Your task to perform on an android device: Search for razer naga on newegg.com, select the first entry, add it to the cart, then select checkout. Image 0: 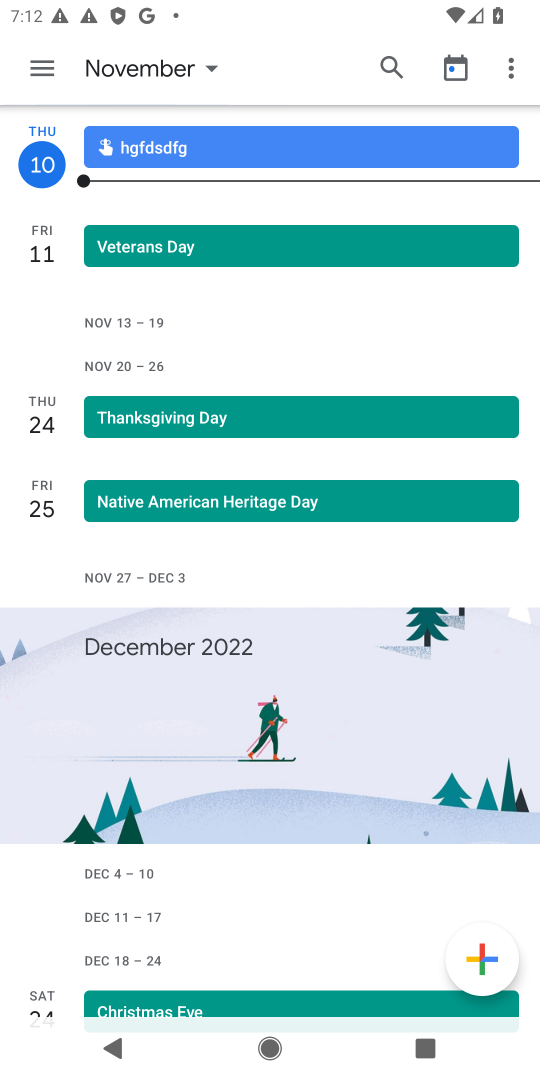
Step 0: press home button
Your task to perform on an android device: Search for razer naga on newegg.com, select the first entry, add it to the cart, then select checkout. Image 1: 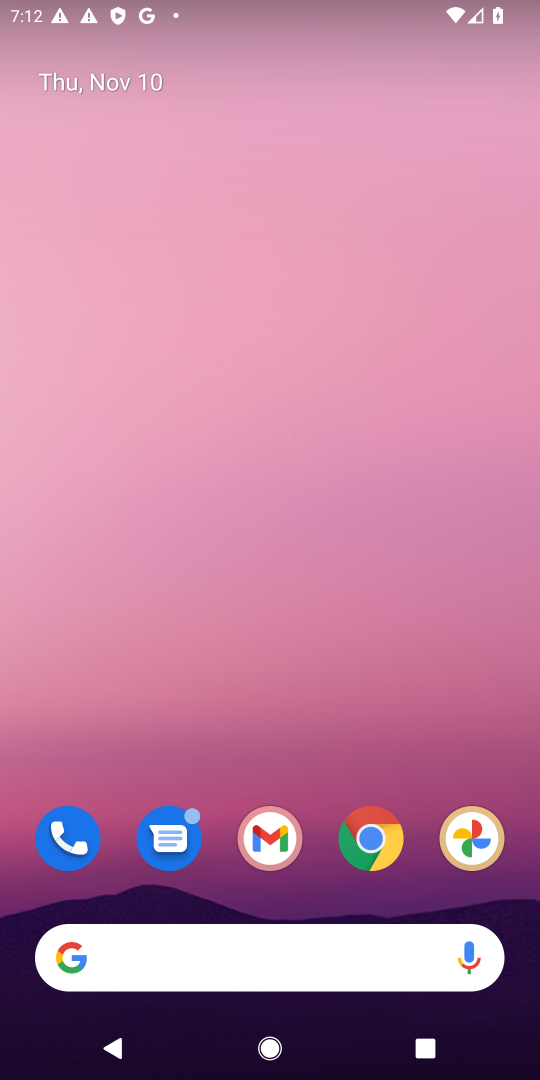
Step 1: drag from (300, 902) to (303, 73)
Your task to perform on an android device: Search for razer naga on newegg.com, select the first entry, add it to the cart, then select checkout. Image 2: 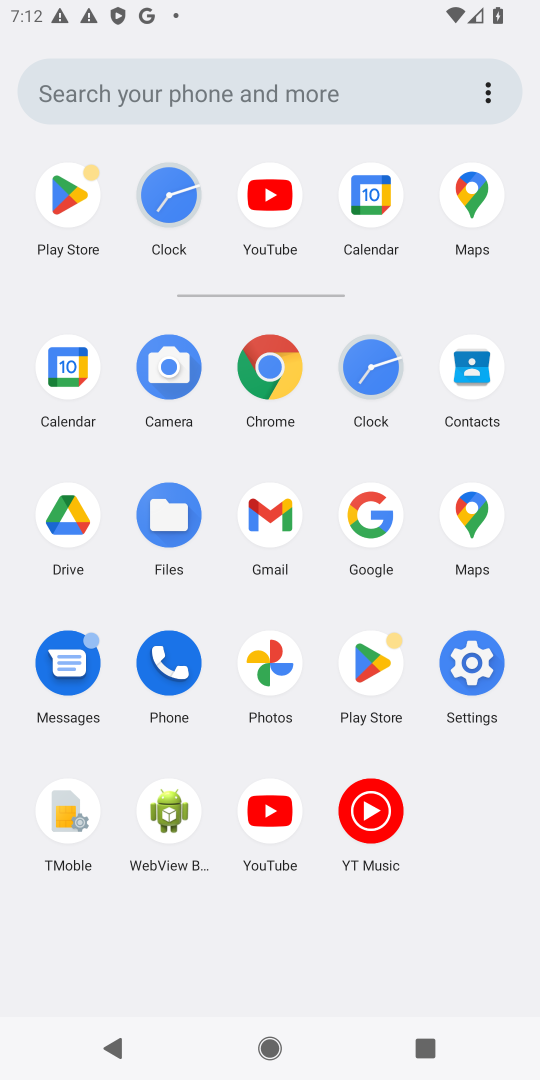
Step 2: click (263, 363)
Your task to perform on an android device: Search for razer naga on newegg.com, select the first entry, add it to the cart, then select checkout. Image 3: 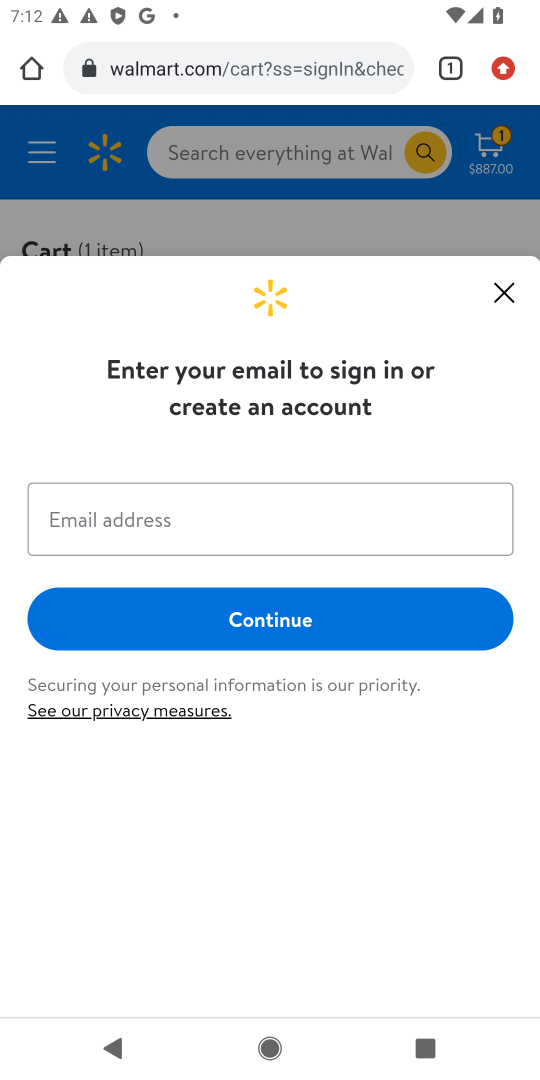
Step 3: click (308, 65)
Your task to perform on an android device: Search for razer naga on newegg.com, select the first entry, add it to the cart, then select checkout. Image 4: 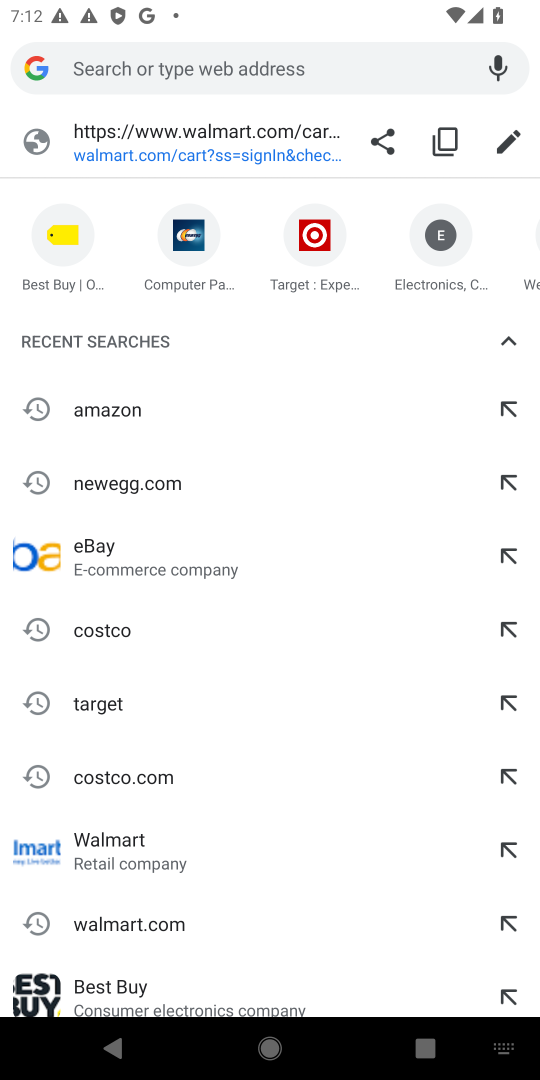
Step 4: type "newegg.com"
Your task to perform on an android device: Search for razer naga on newegg.com, select the first entry, add it to the cart, then select checkout. Image 5: 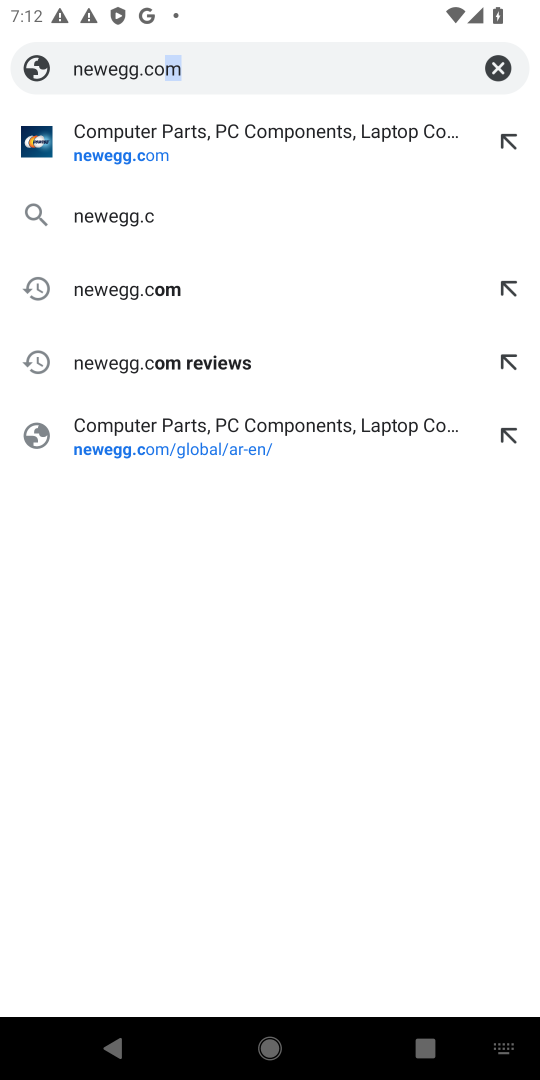
Step 5: press enter
Your task to perform on an android device: Search for razer naga on newegg.com, select the first entry, add it to the cart, then select checkout. Image 6: 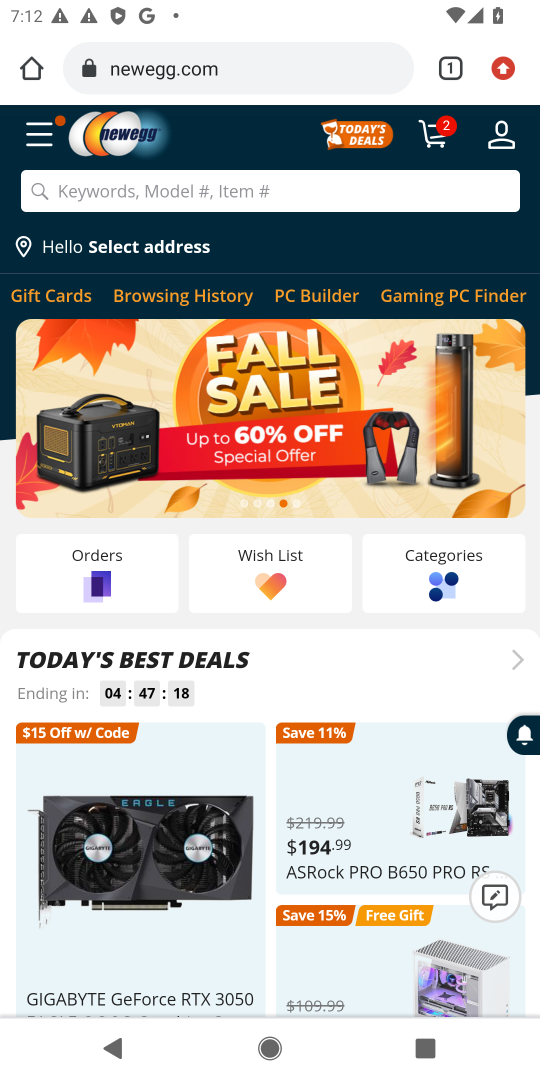
Step 6: click (395, 183)
Your task to perform on an android device: Search for razer naga on newegg.com, select the first entry, add it to the cart, then select checkout. Image 7: 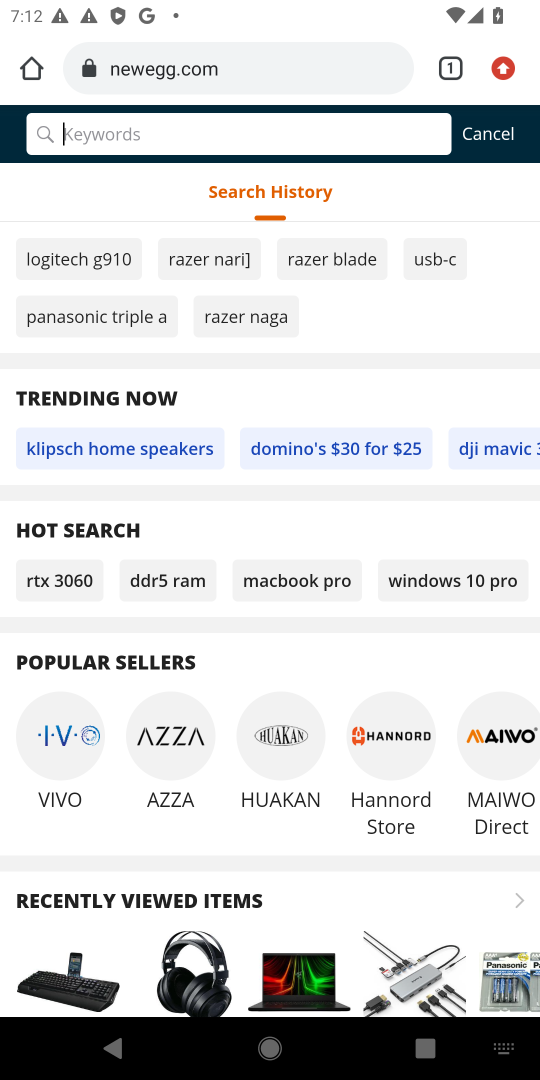
Step 7: type "razer  naga"
Your task to perform on an android device: Search for razer naga on newegg.com, select the first entry, add it to the cart, then select checkout. Image 8: 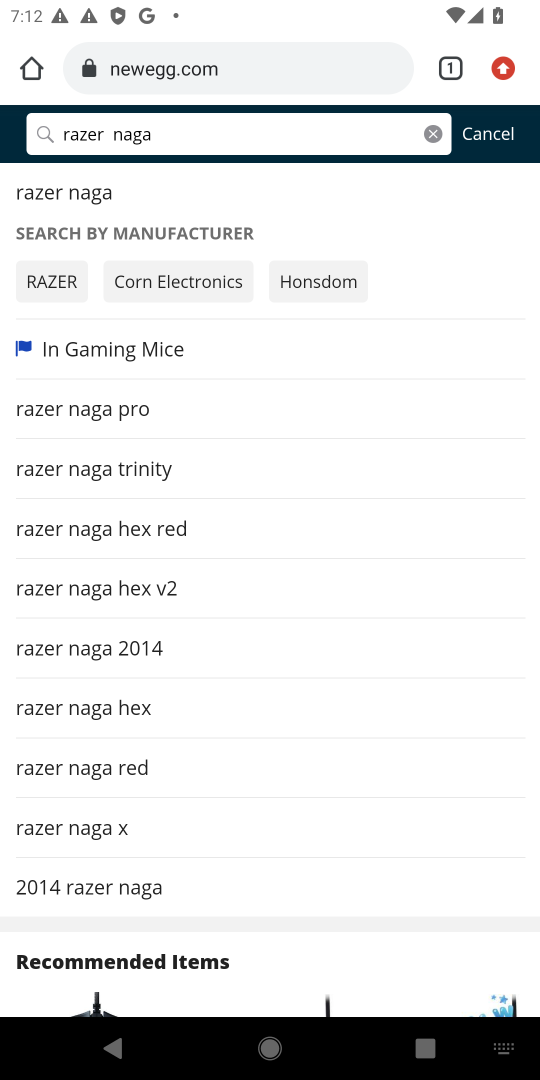
Step 8: press enter
Your task to perform on an android device: Search for razer naga on newegg.com, select the first entry, add it to the cart, then select checkout. Image 9: 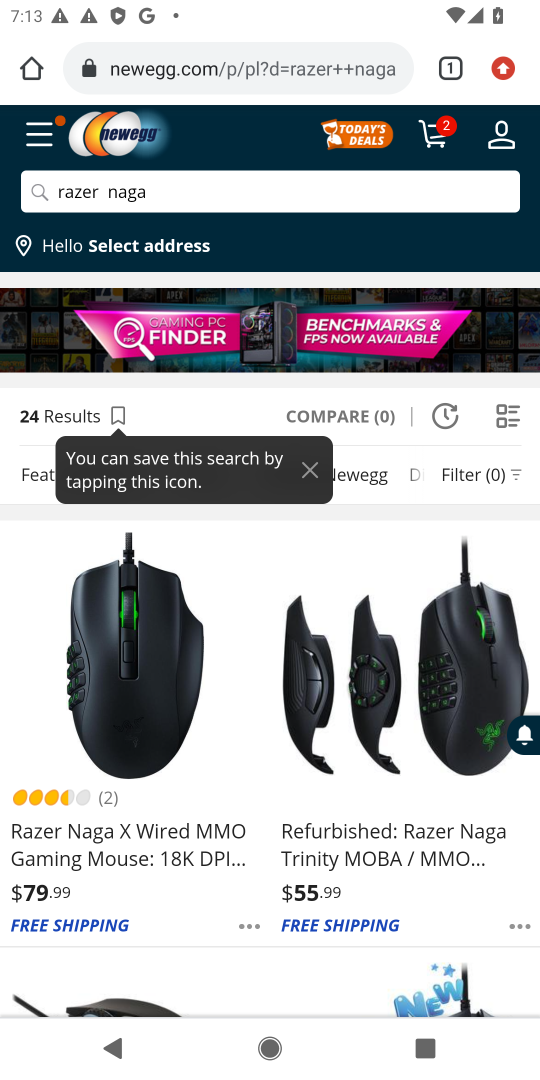
Step 9: click (135, 840)
Your task to perform on an android device: Search for razer naga on newegg.com, select the first entry, add it to the cart, then select checkout. Image 10: 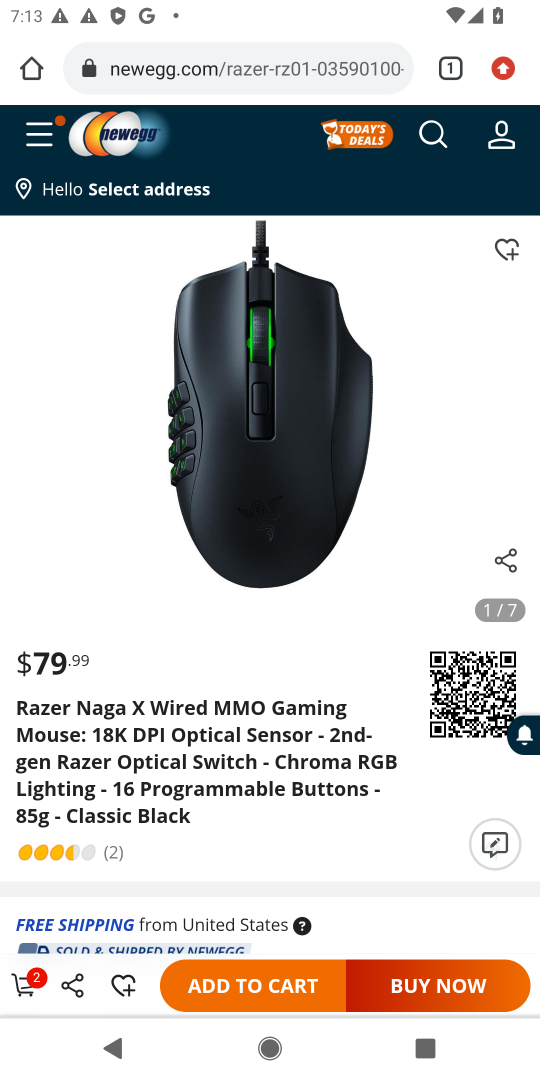
Step 10: click (235, 997)
Your task to perform on an android device: Search for razer naga on newegg.com, select the first entry, add it to the cart, then select checkout. Image 11: 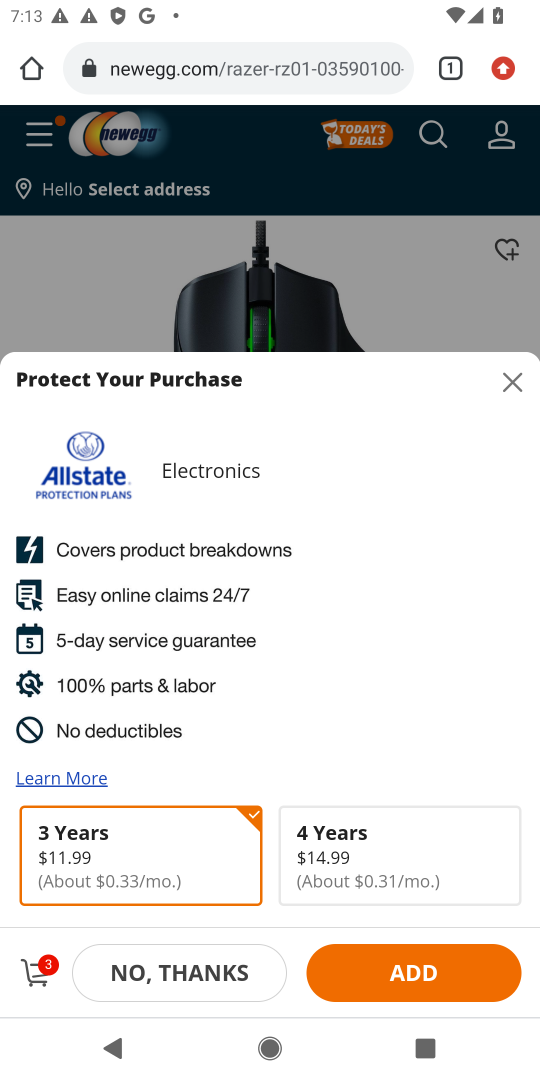
Step 11: click (47, 959)
Your task to perform on an android device: Search for razer naga on newegg.com, select the first entry, add it to the cart, then select checkout. Image 12: 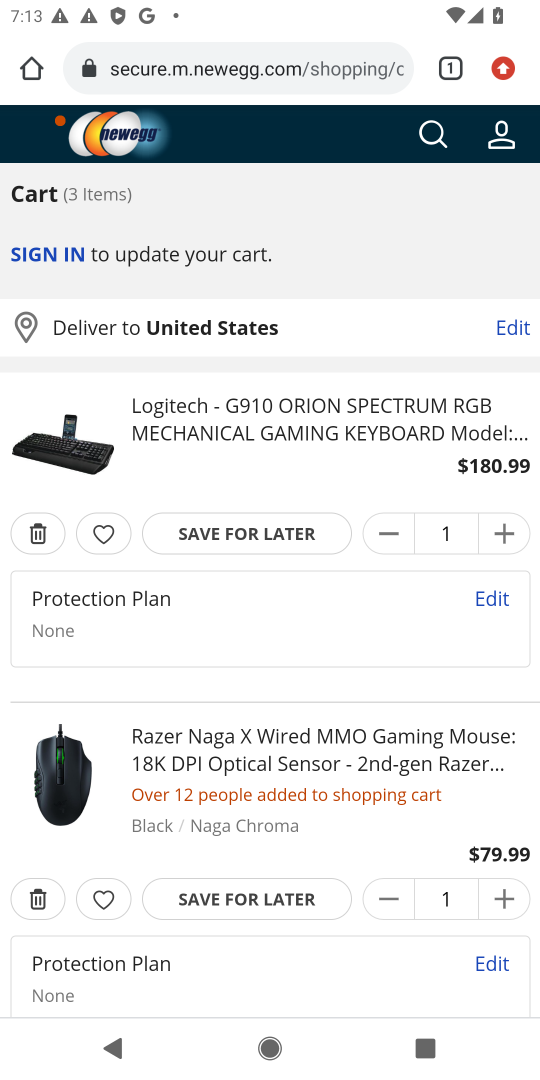
Step 12: click (300, 928)
Your task to perform on an android device: Search for razer naga on newegg.com, select the first entry, add it to the cart, then select checkout. Image 13: 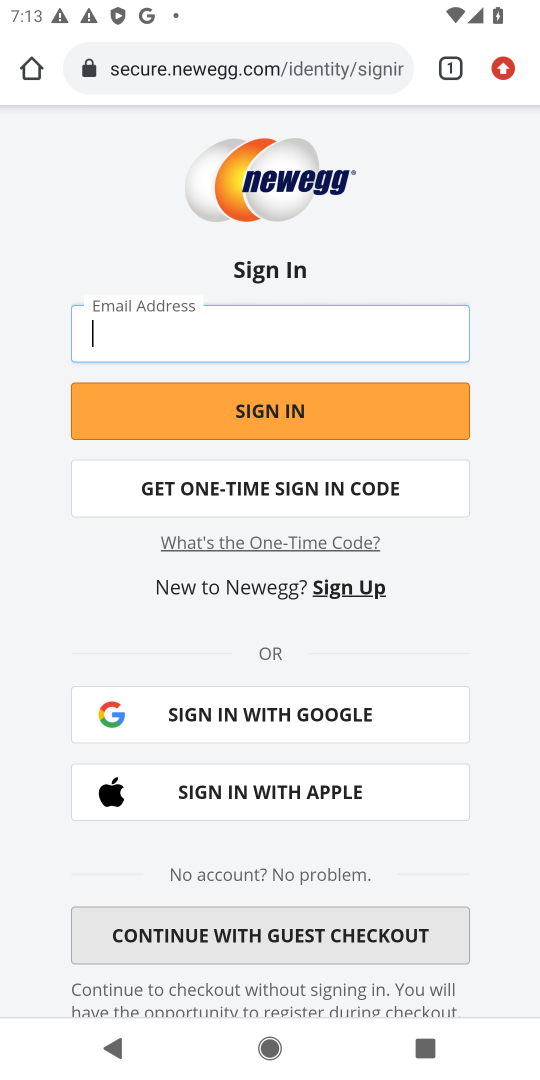
Step 13: task complete